Your task to perform on an android device: check storage Image 0: 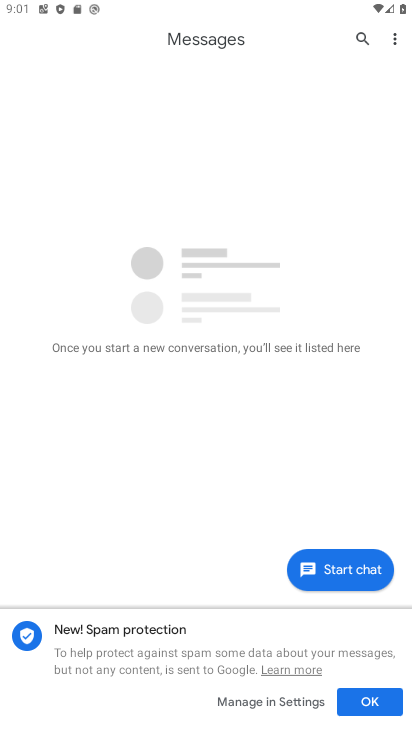
Step 0: press home button
Your task to perform on an android device: check storage Image 1: 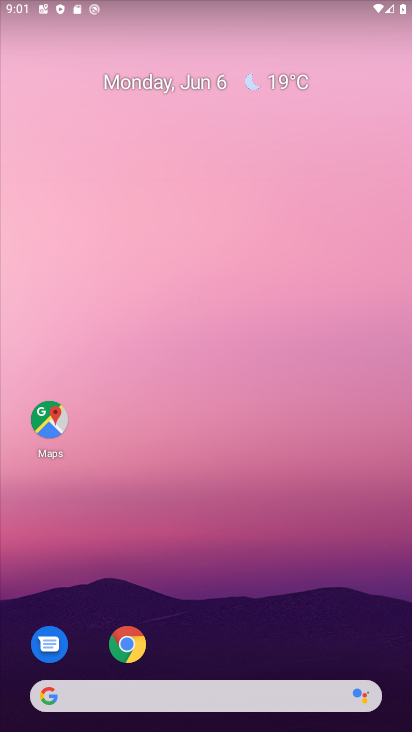
Step 1: drag from (224, 656) to (317, 207)
Your task to perform on an android device: check storage Image 2: 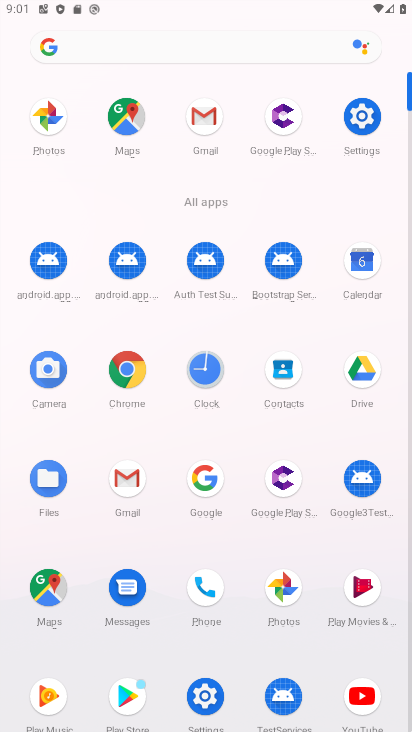
Step 2: click (200, 695)
Your task to perform on an android device: check storage Image 3: 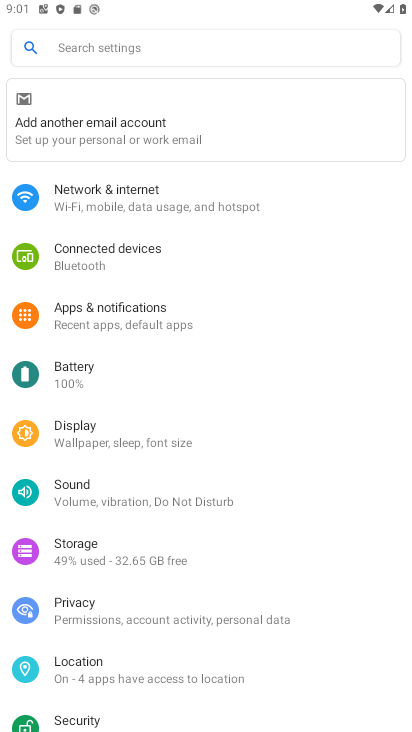
Step 3: click (134, 555)
Your task to perform on an android device: check storage Image 4: 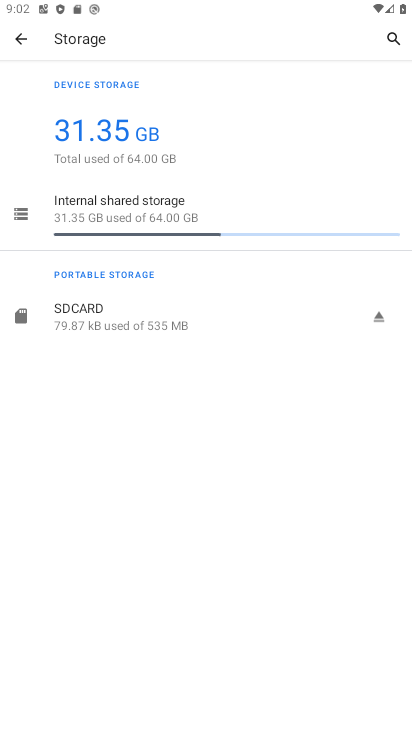
Step 4: task complete